Your task to perform on an android device: change the clock display to analog Image 0: 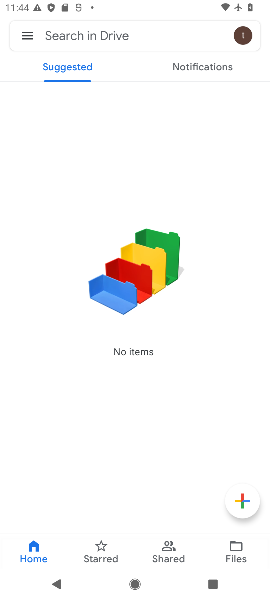
Step 0: press home button
Your task to perform on an android device: change the clock display to analog Image 1: 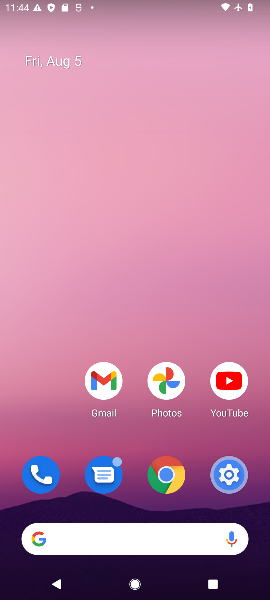
Step 1: drag from (137, 521) to (151, 271)
Your task to perform on an android device: change the clock display to analog Image 2: 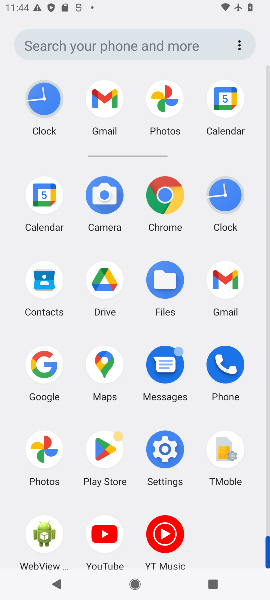
Step 2: click (218, 207)
Your task to perform on an android device: change the clock display to analog Image 3: 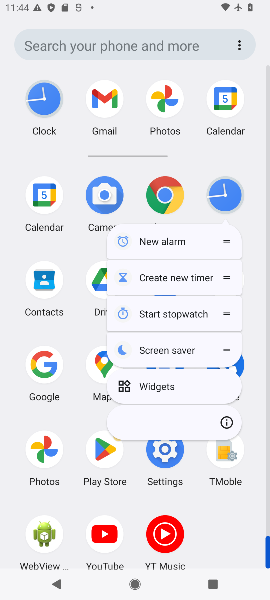
Step 3: click (229, 186)
Your task to perform on an android device: change the clock display to analog Image 4: 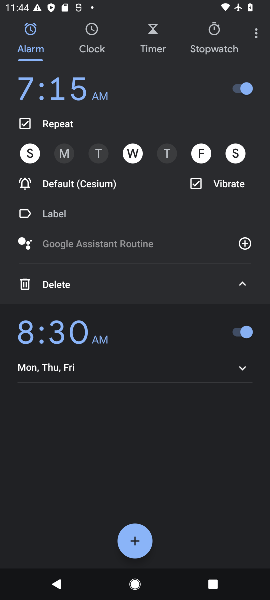
Step 4: click (256, 36)
Your task to perform on an android device: change the clock display to analog Image 5: 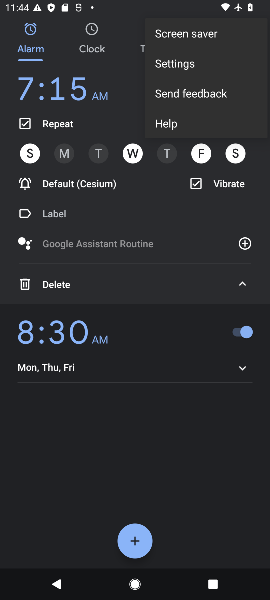
Step 5: click (197, 69)
Your task to perform on an android device: change the clock display to analog Image 6: 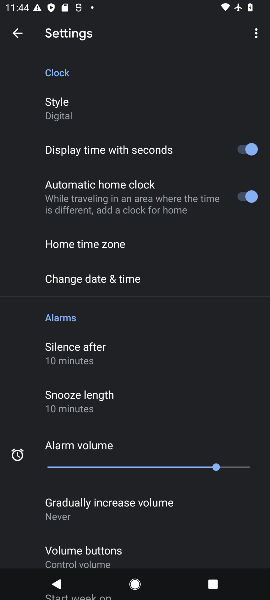
Step 6: click (76, 119)
Your task to perform on an android device: change the clock display to analog Image 7: 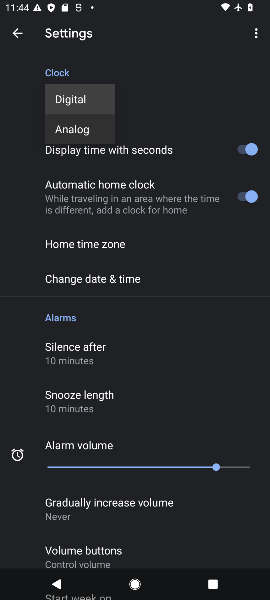
Step 7: click (68, 133)
Your task to perform on an android device: change the clock display to analog Image 8: 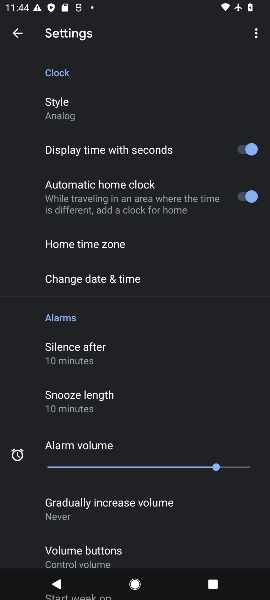
Step 8: task complete